Your task to perform on an android device: turn on showing notifications on the lock screen Image 0: 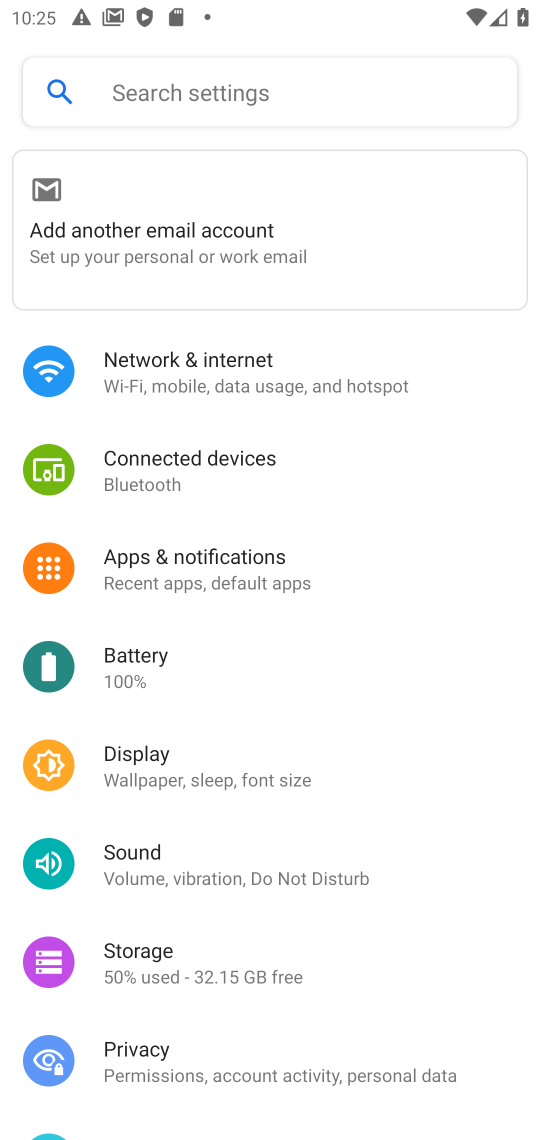
Step 0: press home button
Your task to perform on an android device: turn on showing notifications on the lock screen Image 1: 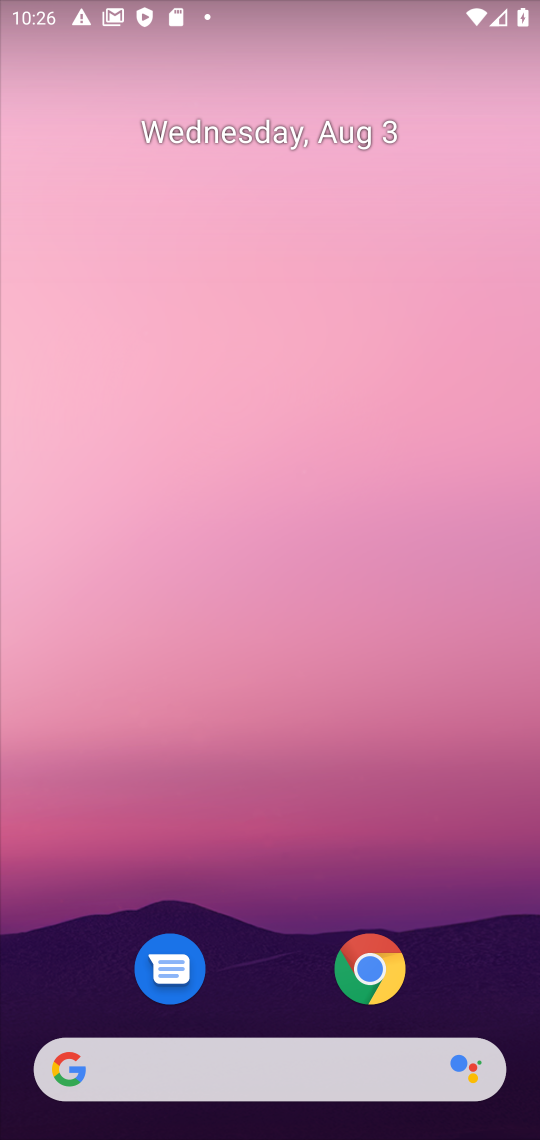
Step 1: drag from (278, 997) to (494, 411)
Your task to perform on an android device: turn on showing notifications on the lock screen Image 2: 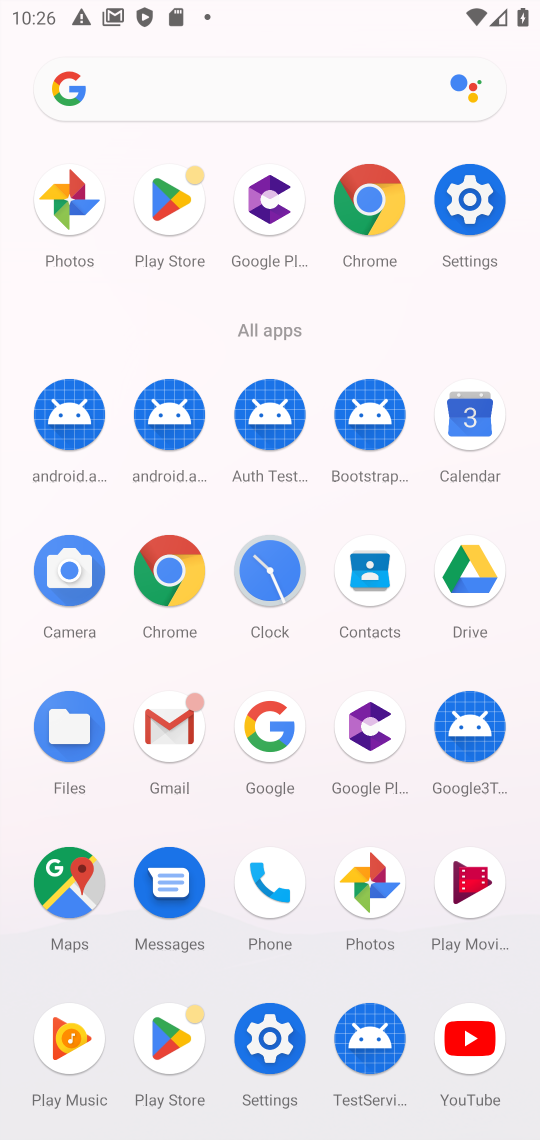
Step 2: click (469, 237)
Your task to perform on an android device: turn on showing notifications on the lock screen Image 3: 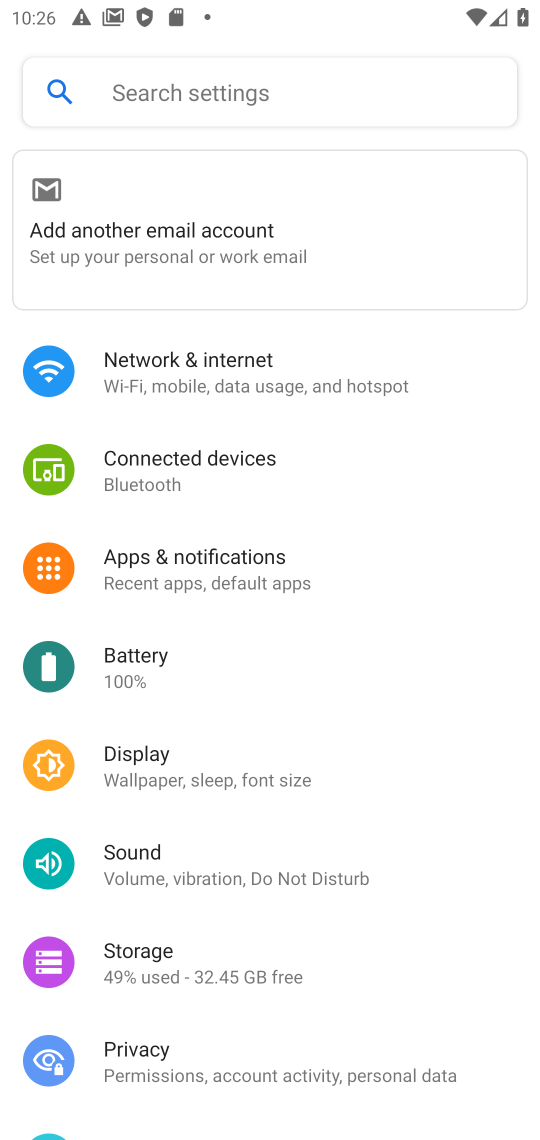
Step 3: click (211, 562)
Your task to perform on an android device: turn on showing notifications on the lock screen Image 4: 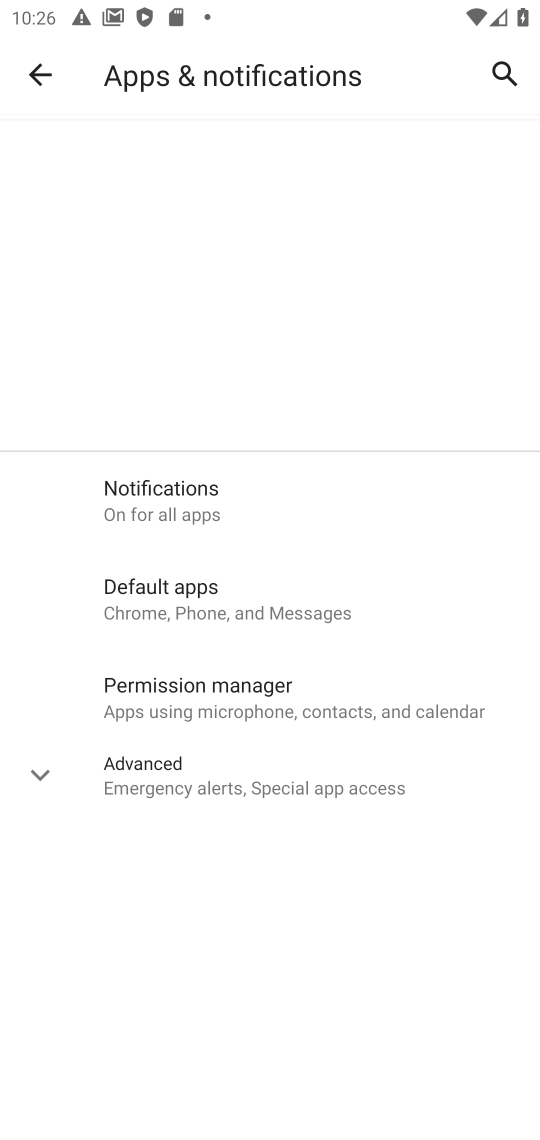
Step 4: click (170, 500)
Your task to perform on an android device: turn on showing notifications on the lock screen Image 5: 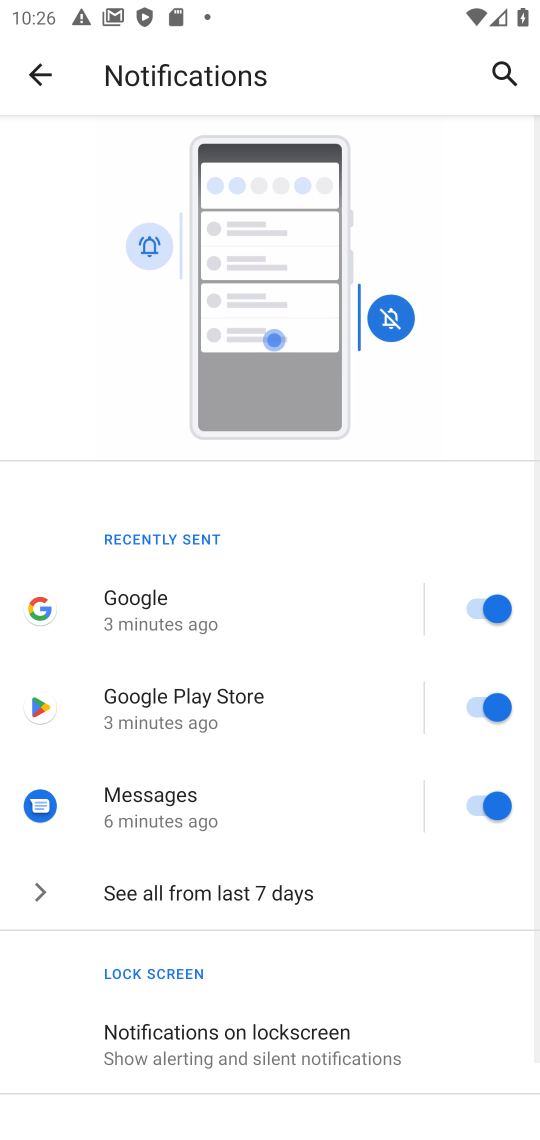
Step 5: click (349, 1070)
Your task to perform on an android device: turn on showing notifications on the lock screen Image 6: 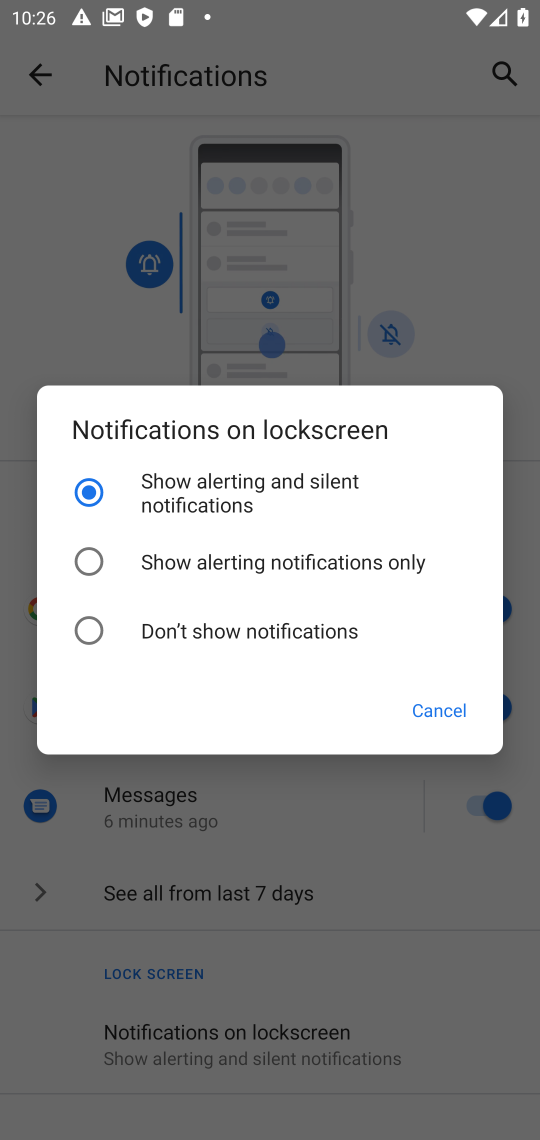
Step 6: click (148, 474)
Your task to perform on an android device: turn on showing notifications on the lock screen Image 7: 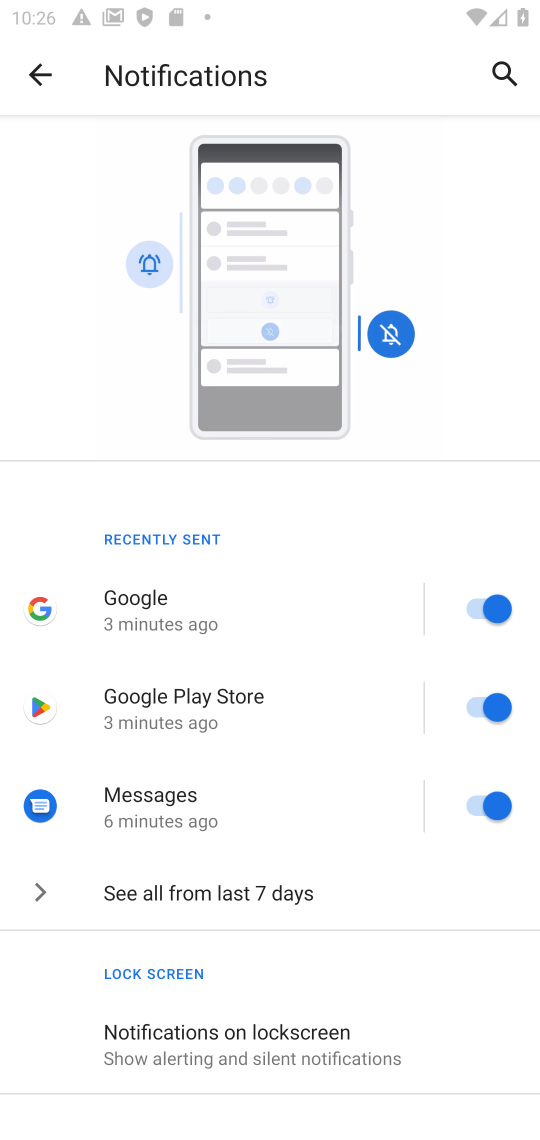
Step 7: task complete